Your task to perform on an android device: toggle javascript in the chrome app Image 0: 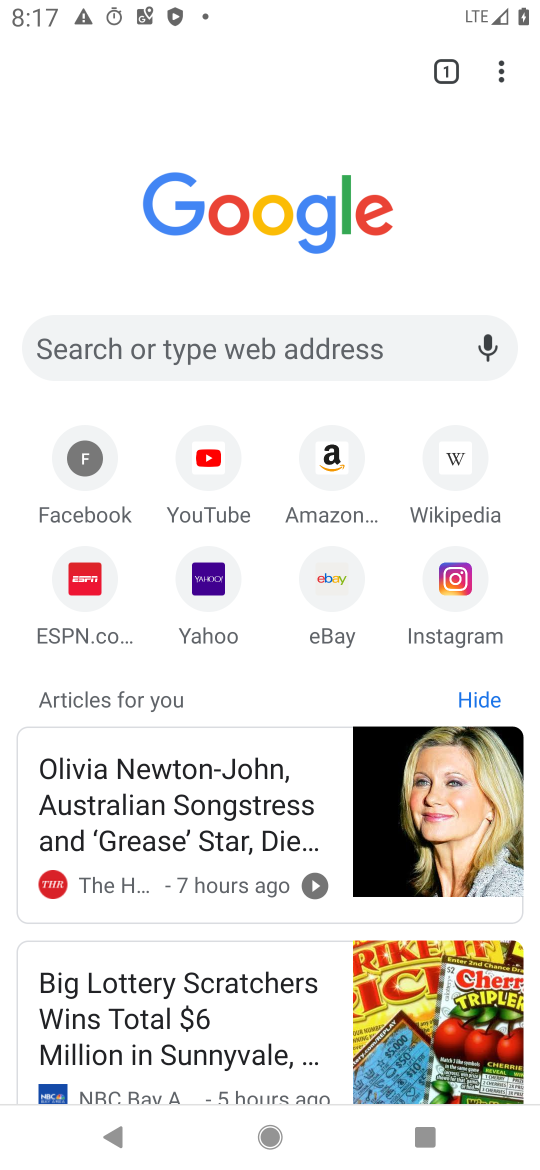
Step 0: press home button
Your task to perform on an android device: toggle javascript in the chrome app Image 1: 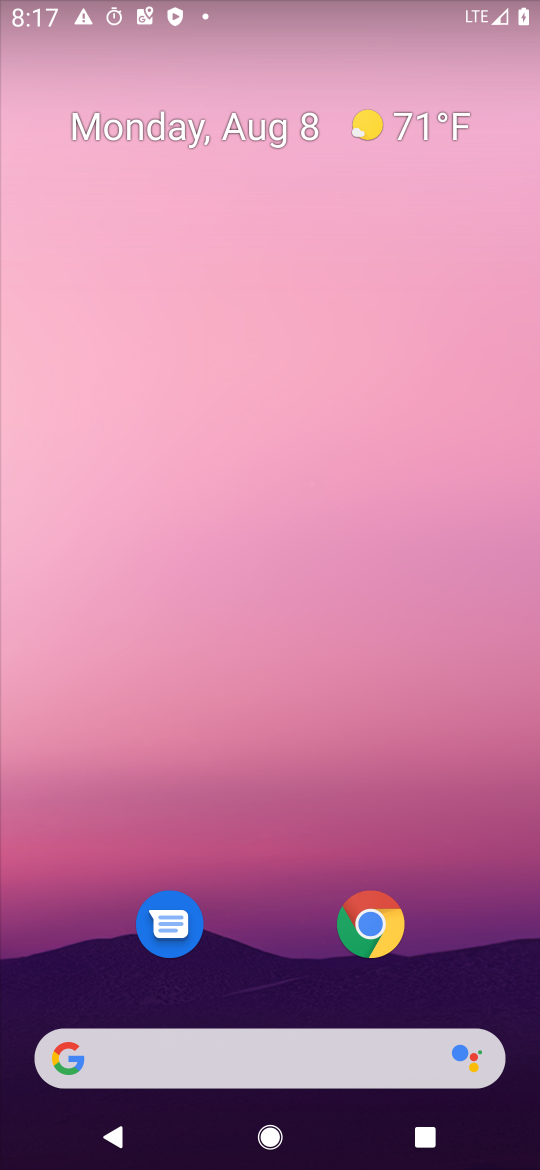
Step 1: drag from (288, 696) to (293, 285)
Your task to perform on an android device: toggle javascript in the chrome app Image 2: 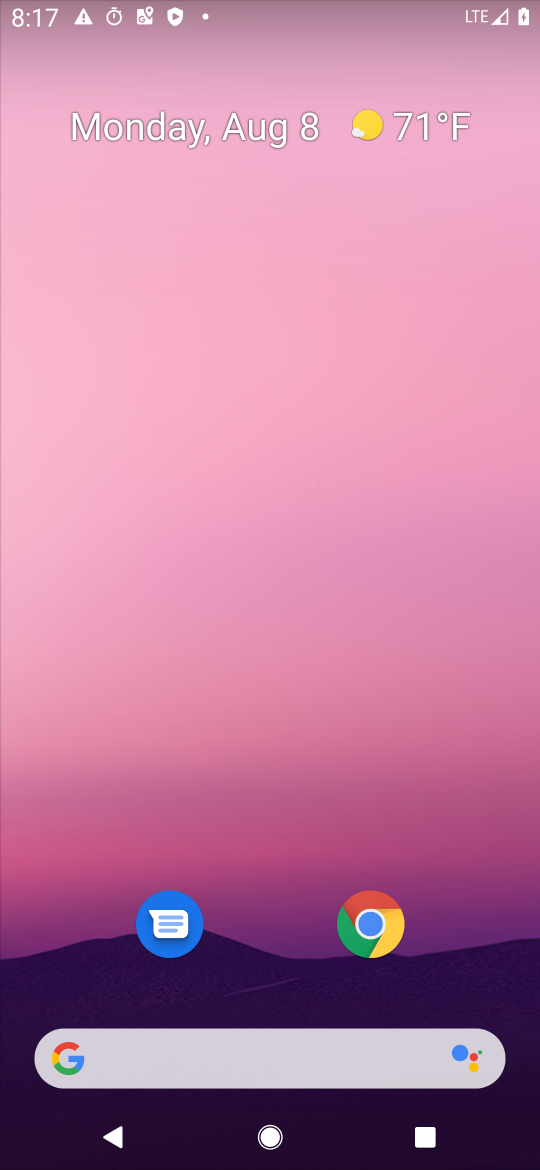
Step 2: click (378, 918)
Your task to perform on an android device: toggle javascript in the chrome app Image 3: 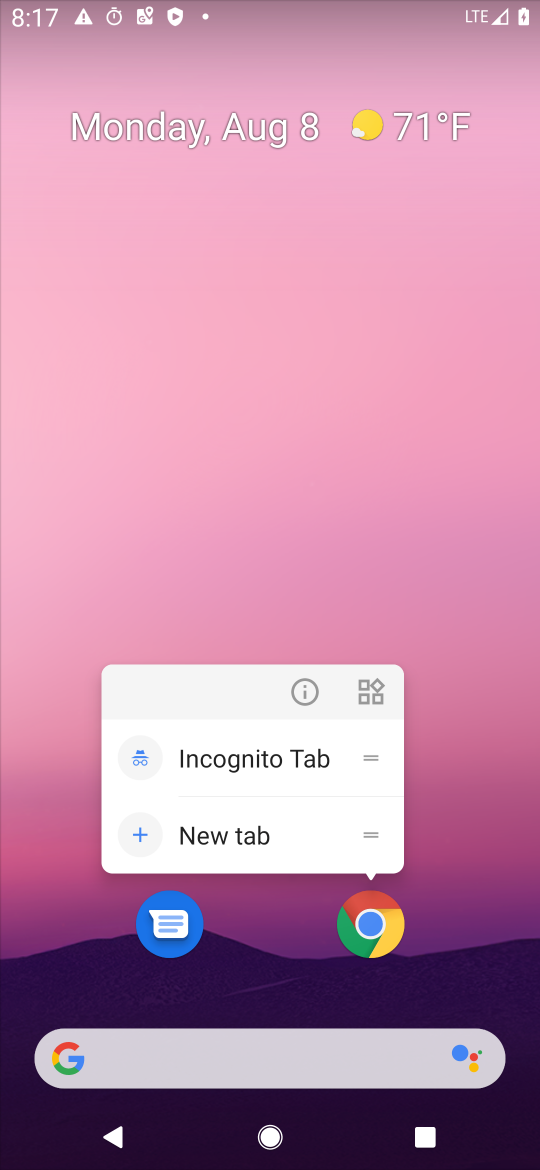
Step 3: click (293, 685)
Your task to perform on an android device: toggle javascript in the chrome app Image 4: 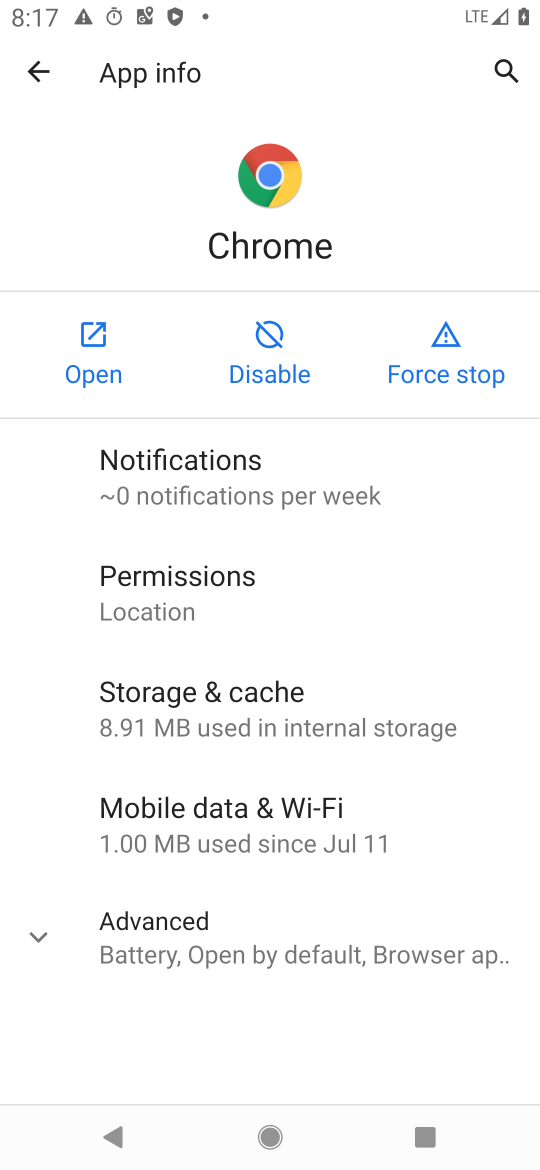
Step 4: click (96, 398)
Your task to perform on an android device: toggle javascript in the chrome app Image 5: 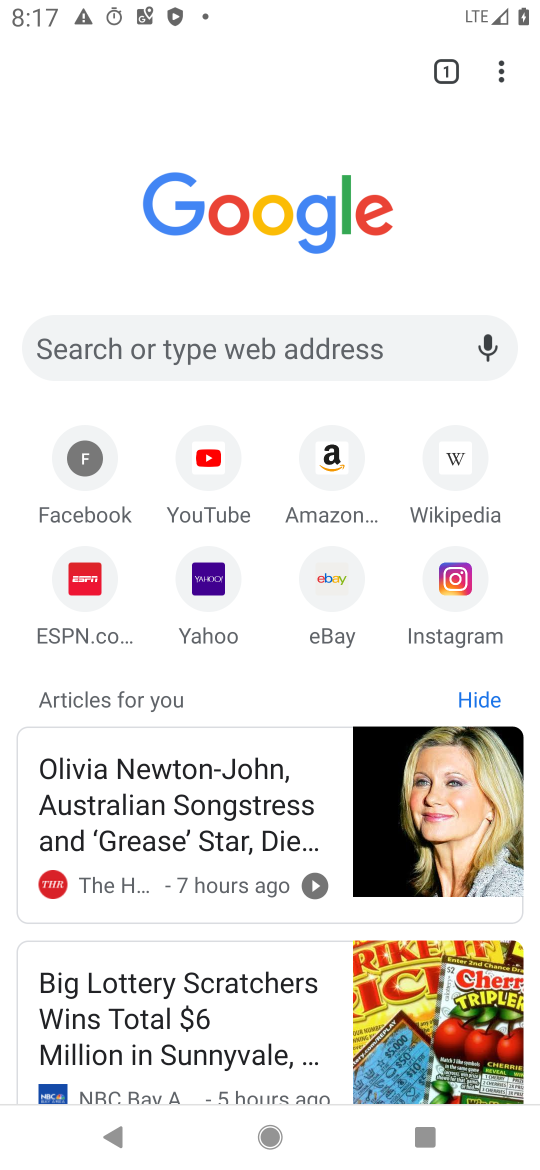
Step 5: drag from (502, 72) to (292, 611)
Your task to perform on an android device: toggle javascript in the chrome app Image 6: 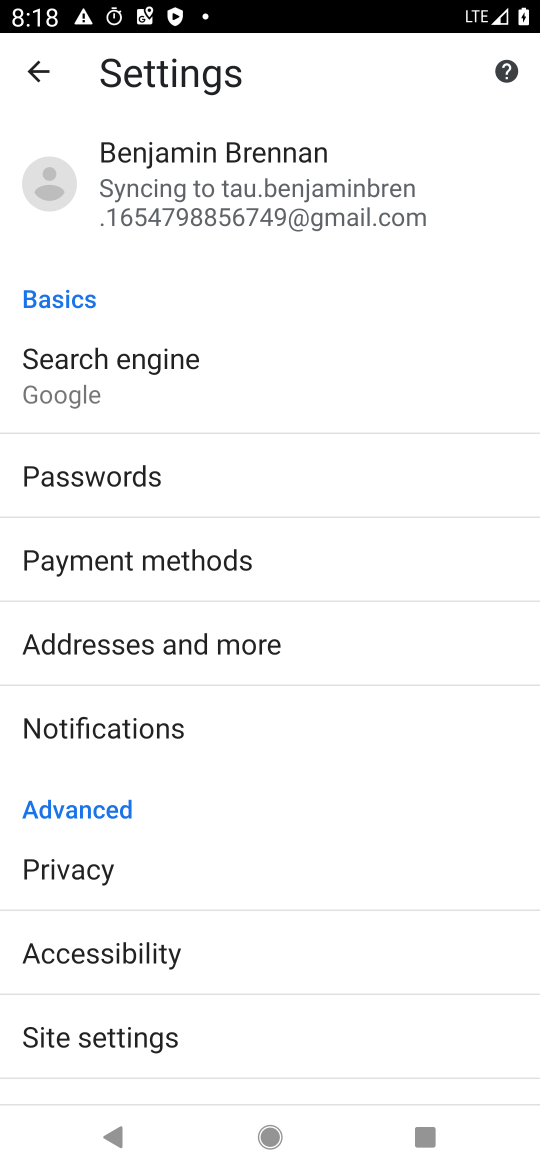
Step 6: drag from (261, 701) to (237, 8)
Your task to perform on an android device: toggle javascript in the chrome app Image 7: 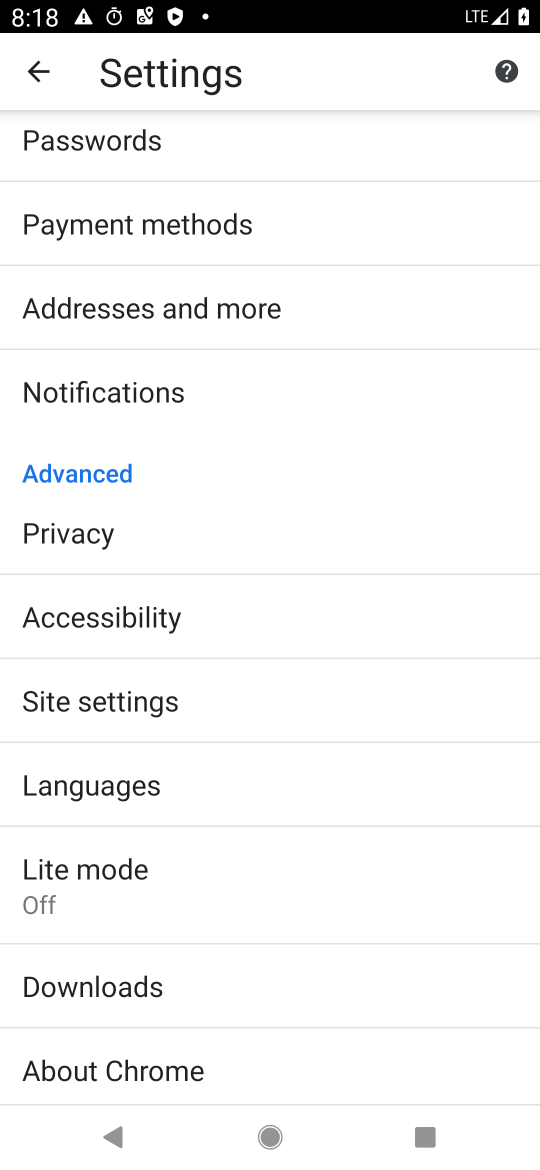
Step 7: click (118, 682)
Your task to perform on an android device: toggle javascript in the chrome app Image 8: 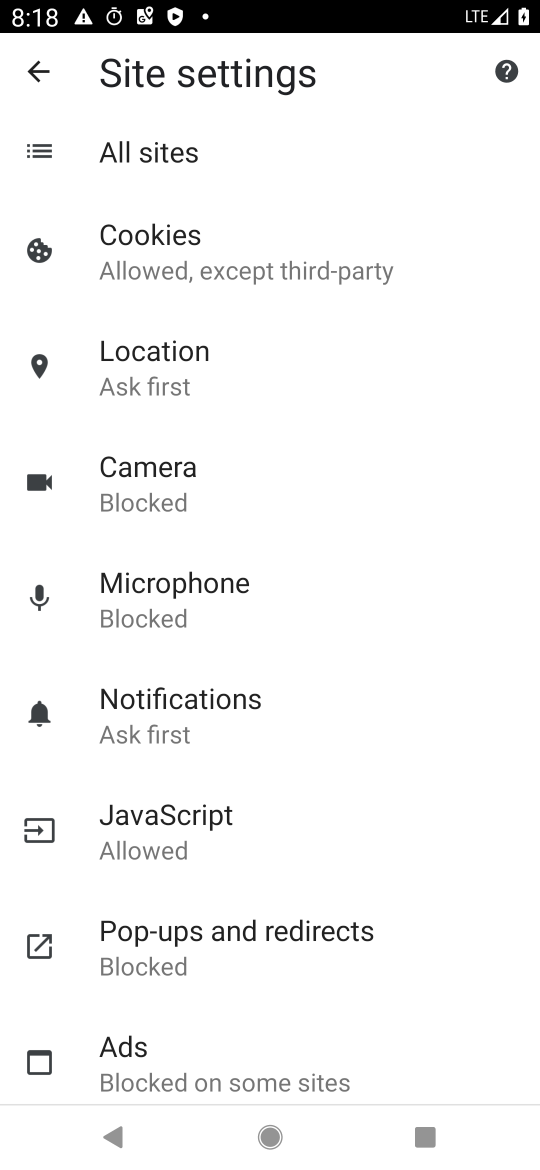
Step 8: click (225, 867)
Your task to perform on an android device: toggle javascript in the chrome app Image 9: 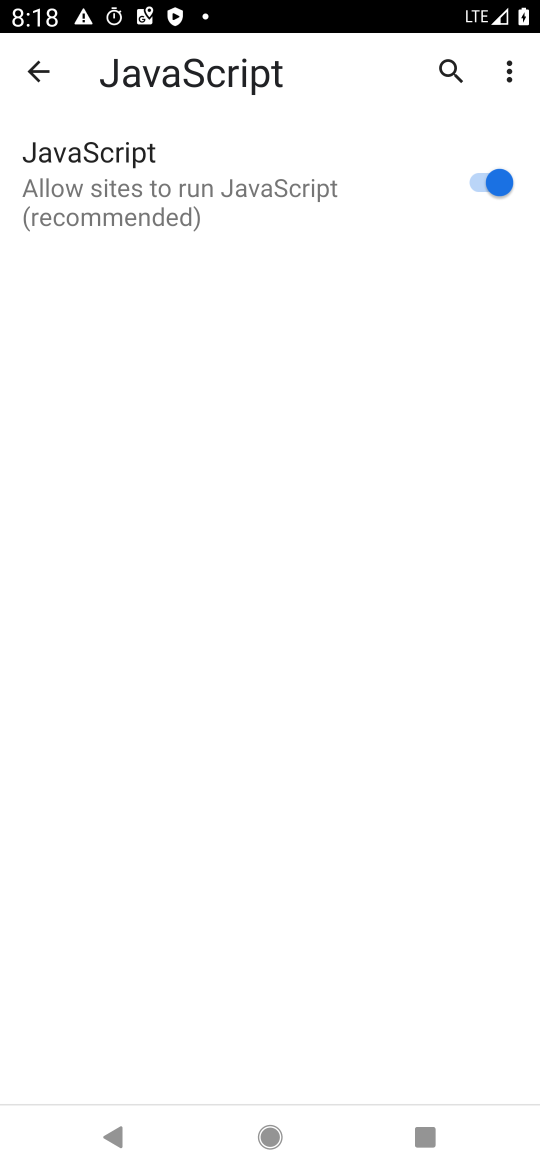
Step 9: click (489, 177)
Your task to perform on an android device: toggle javascript in the chrome app Image 10: 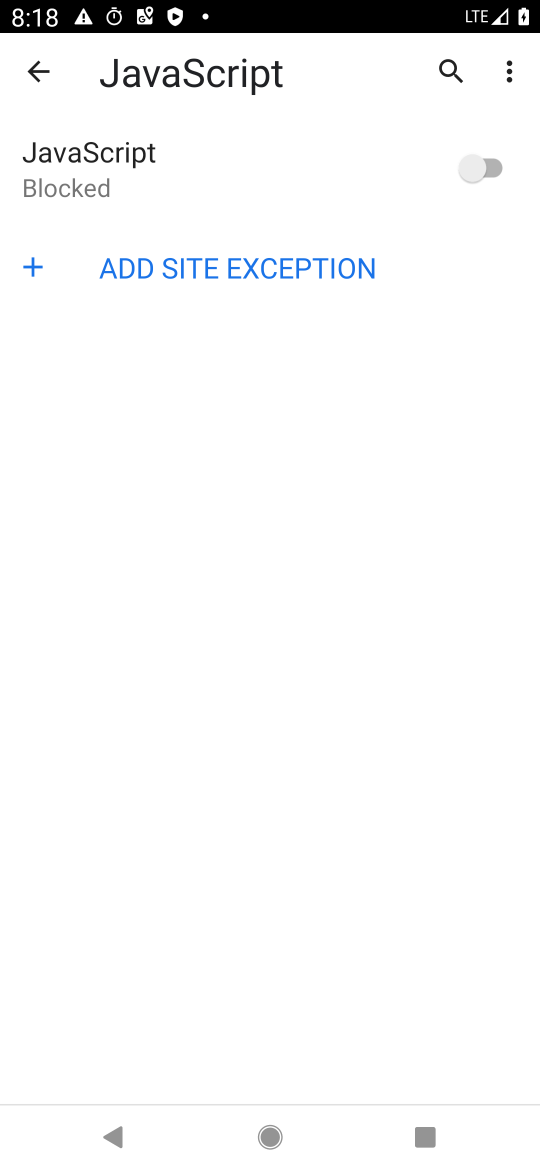
Step 10: task complete